Your task to perform on an android device: find snoozed emails in the gmail app Image 0: 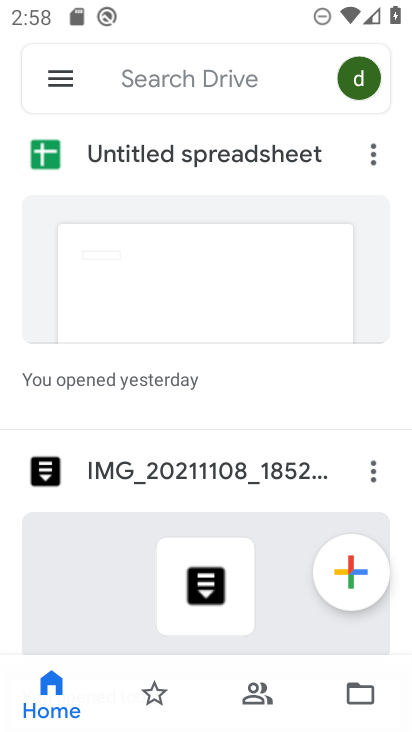
Step 0: press home button
Your task to perform on an android device: find snoozed emails in the gmail app Image 1: 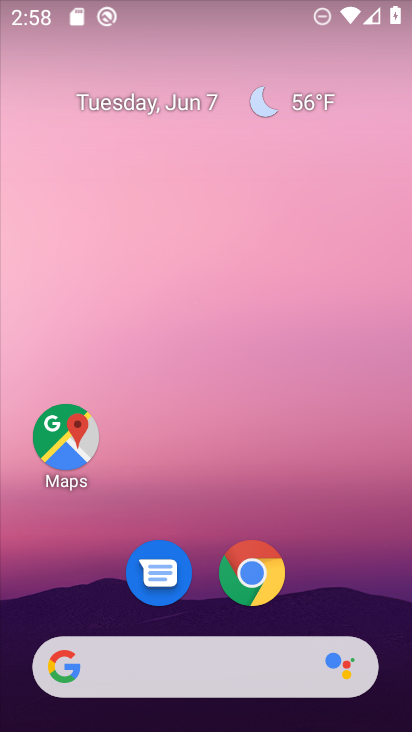
Step 1: drag from (326, 573) to (315, 0)
Your task to perform on an android device: find snoozed emails in the gmail app Image 2: 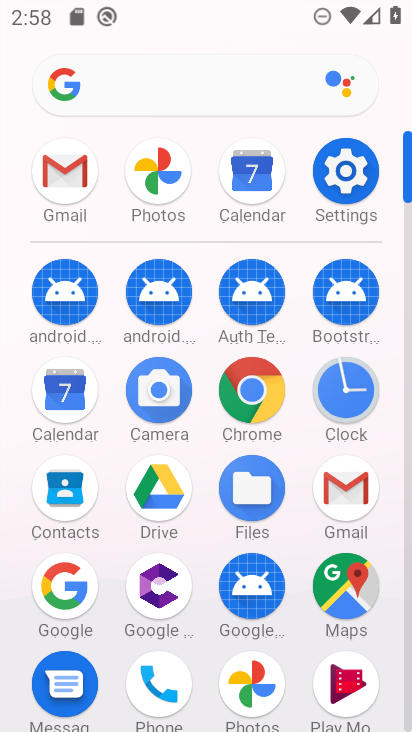
Step 2: click (332, 485)
Your task to perform on an android device: find snoozed emails in the gmail app Image 3: 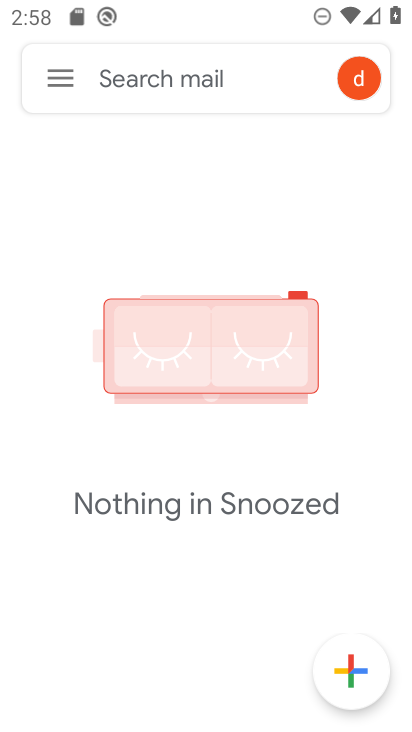
Step 3: task complete